Your task to perform on an android device: open sync settings in chrome Image 0: 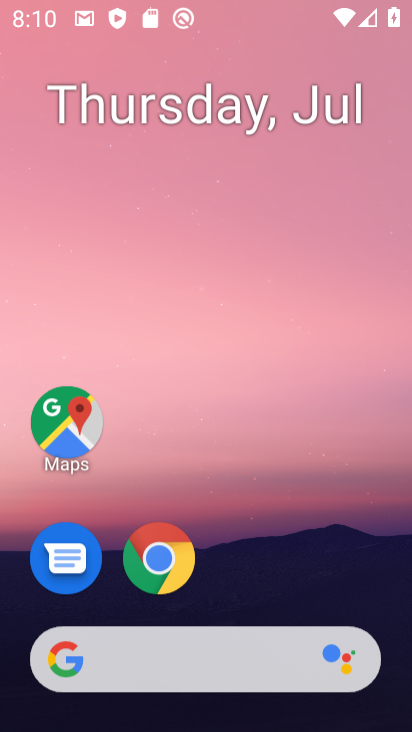
Step 0: click (334, 29)
Your task to perform on an android device: open sync settings in chrome Image 1: 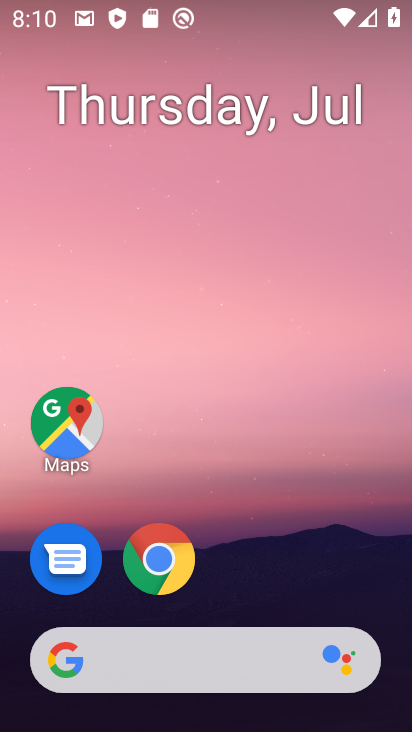
Step 1: click (162, 563)
Your task to perform on an android device: open sync settings in chrome Image 2: 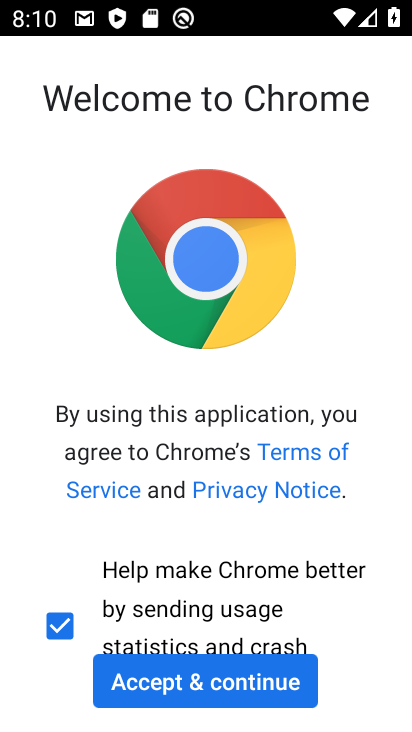
Step 2: click (155, 677)
Your task to perform on an android device: open sync settings in chrome Image 3: 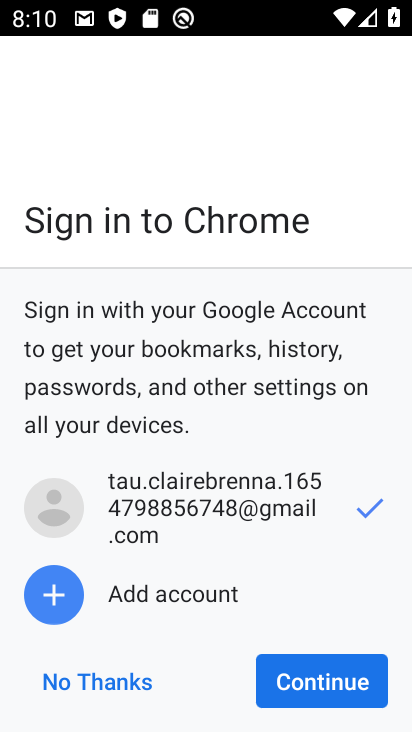
Step 3: click (357, 695)
Your task to perform on an android device: open sync settings in chrome Image 4: 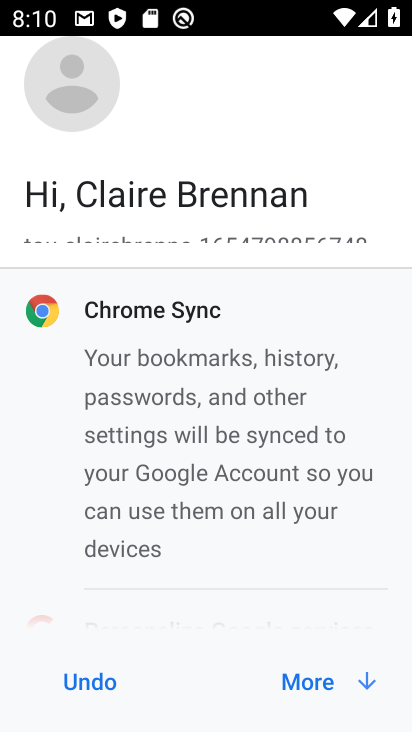
Step 4: click (345, 681)
Your task to perform on an android device: open sync settings in chrome Image 5: 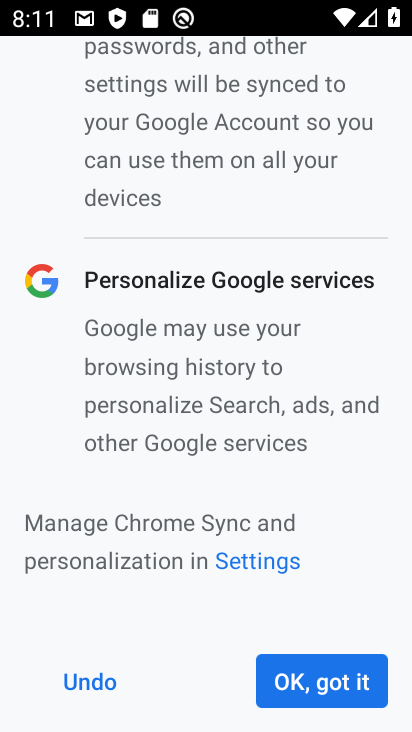
Step 5: click (350, 680)
Your task to perform on an android device: open sync settings in chrome Image 6: 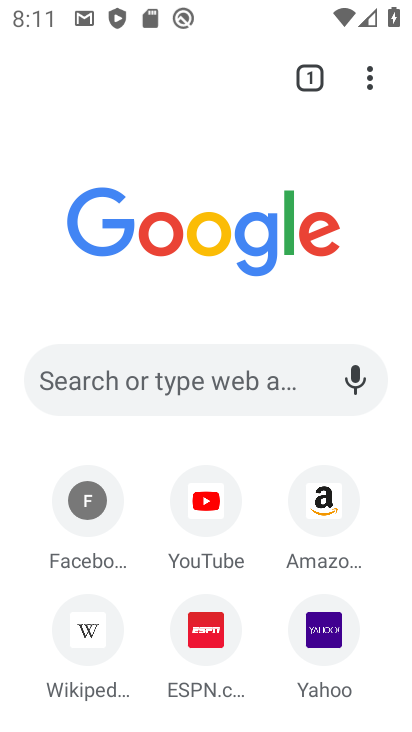
Step 6: drag from (366, 73) to (176, 605)
Your task to perform on an android device: open sync settings in chrome Image 7: 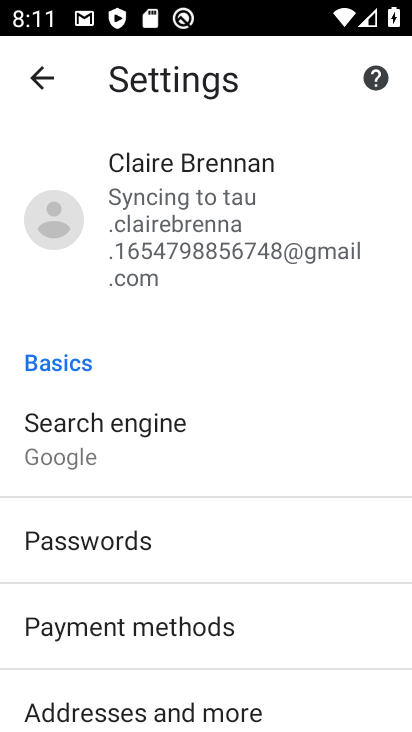
Step 7: click (210, 216)
Your task to perform on an android device: open sync settings in chrome Image 8: 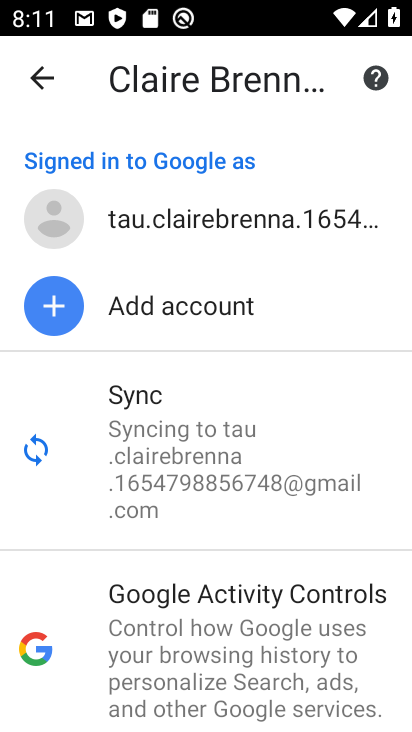
Step 8: task complete